Your task to perform on an android device: open sync settings in chrome Image 0: 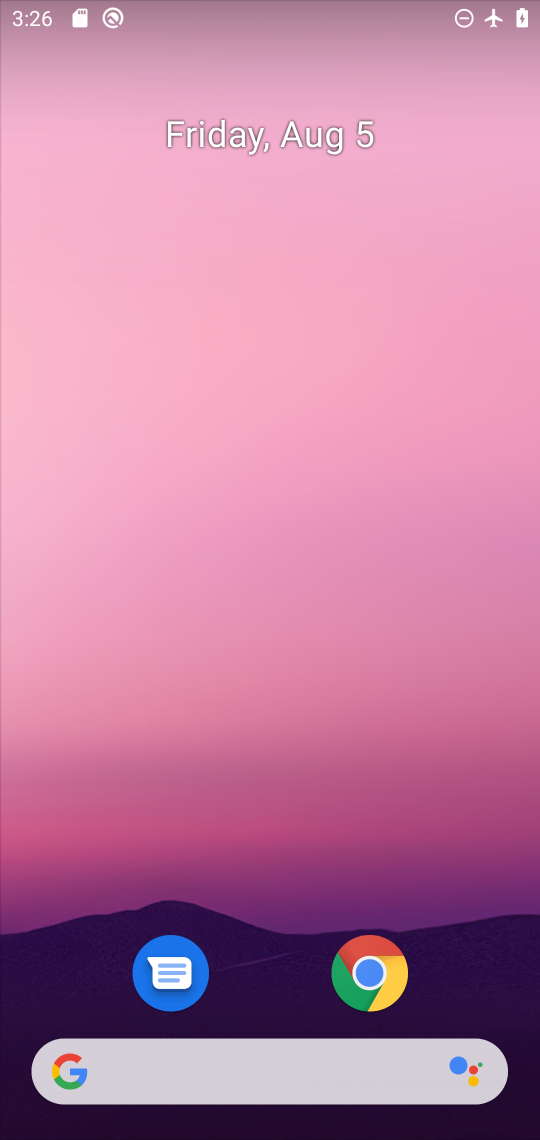
Step 0: drag from (277, 1069) to (278, 270)
Your task to perform on an android device: open sync settings in chrome Image 1: 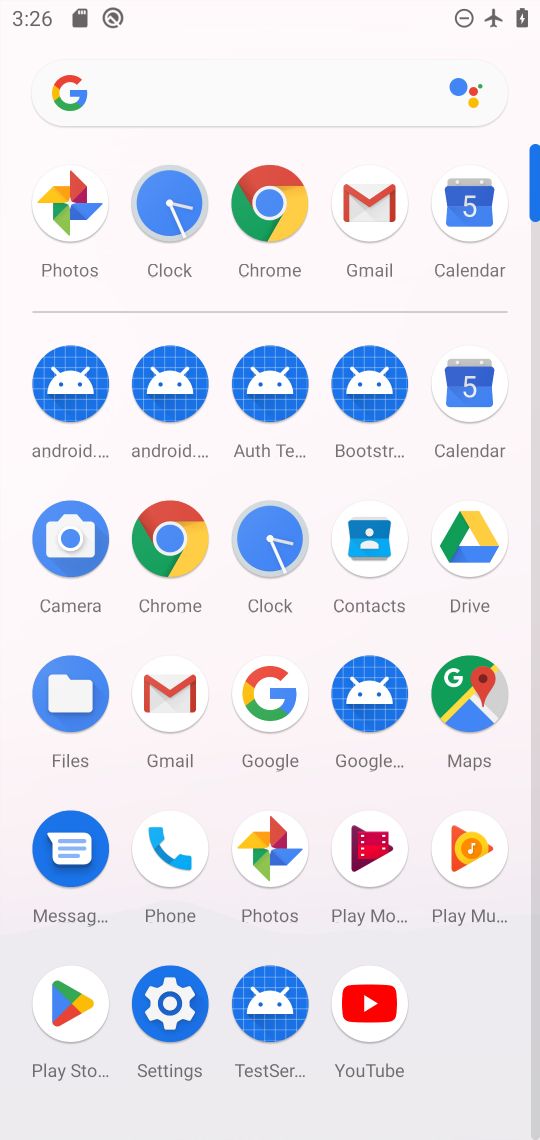
Step 1: click (260, 237)
Your task to perform on an android device: open sync settings in chrome Image 2: 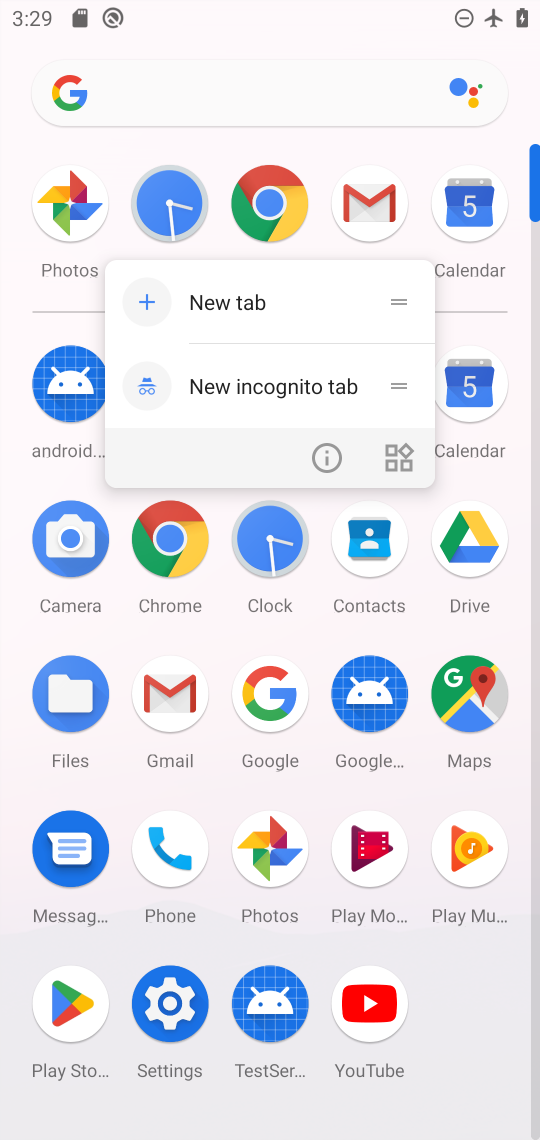
Step 2: click (198, 546)
Your task to perform on an android device: open sync settings in chrome Image 3: 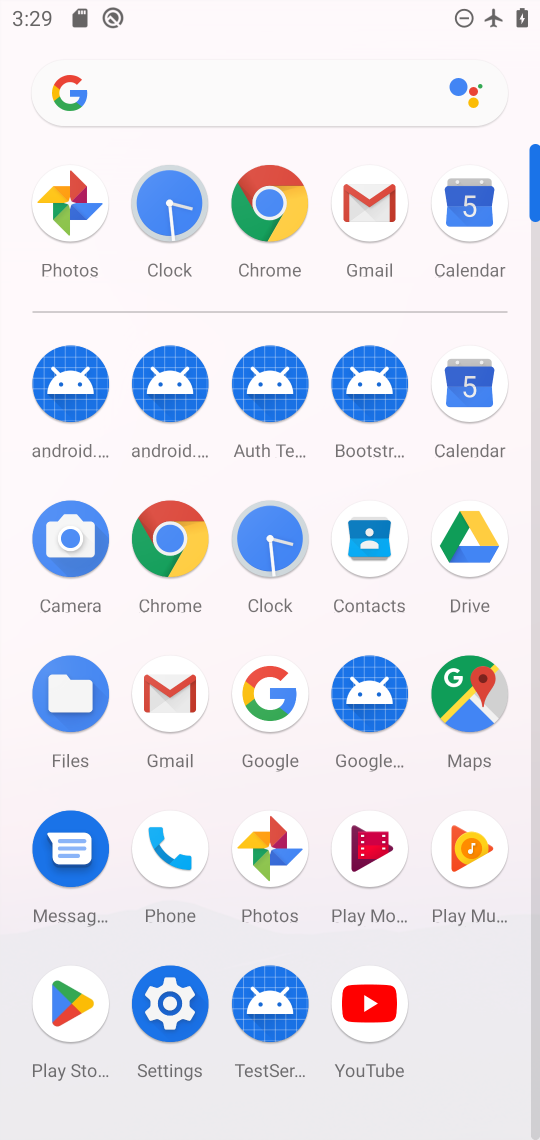
Step 3: click (182, 562)
Your task to perform on an android device: open sync settings in chrome Image 4: 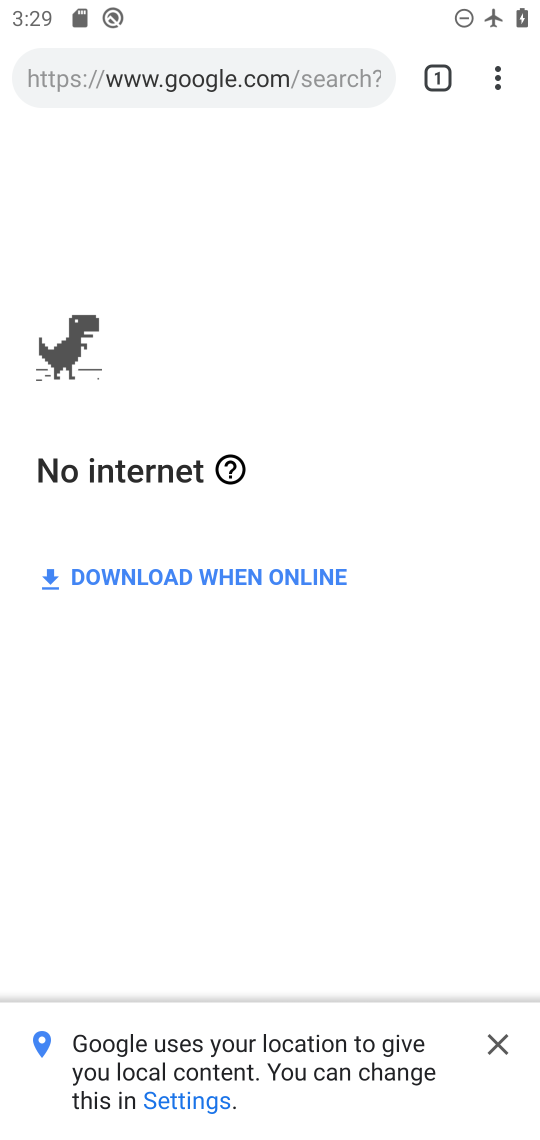
Step 4: click (514, 84)
Your task to perform on an android device: open sync settings in chrome Image 5: 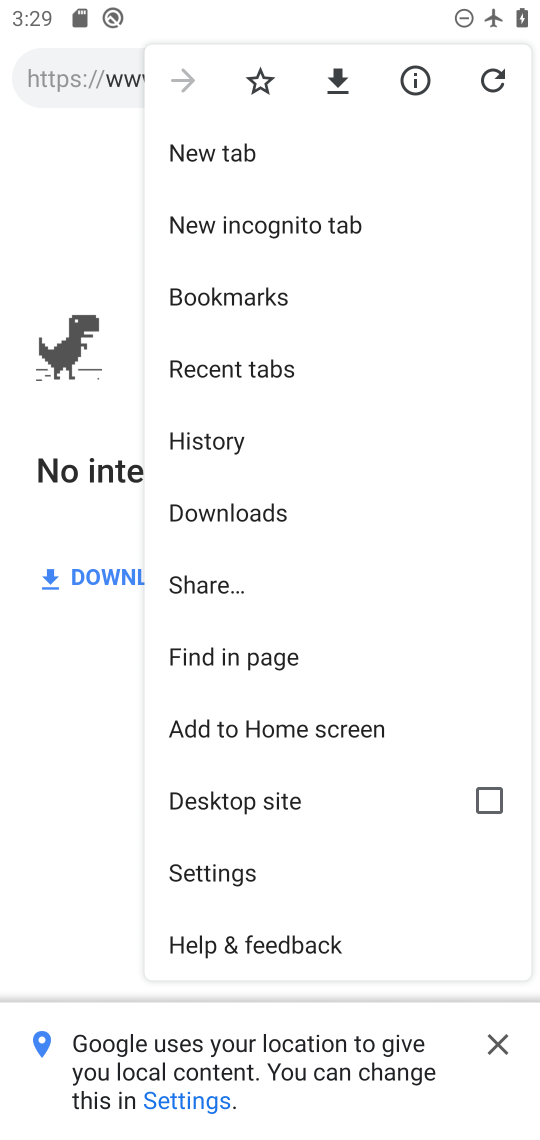
Step 5: click (267, 895)
Your task to perform on an android device: open sync settings in chrome Image 6: 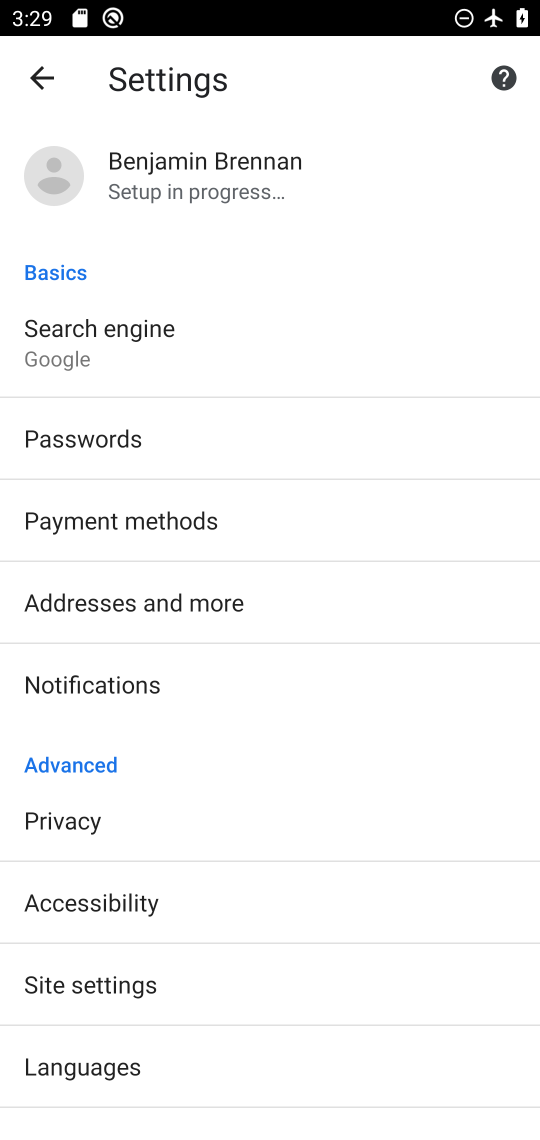
Step 6: drag from (272, 937) to (214, 150)
Your task to perform on an android device: open sync settings in chrome Image 7: 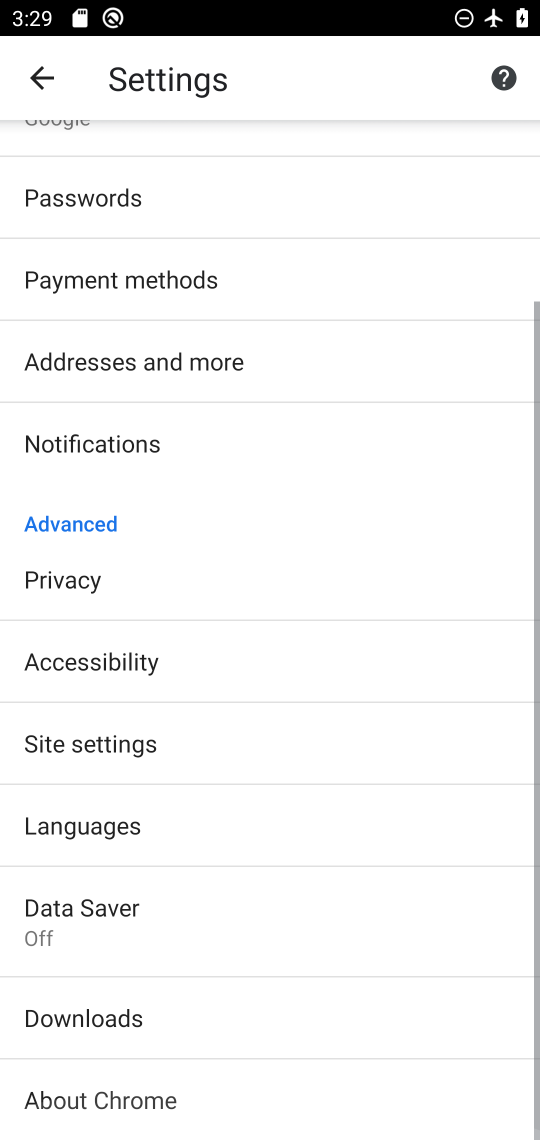
Step 7: drag from (214, 150) to (254, 968)
Your task to perform on an android device: open sync settings in chrome Image 8: 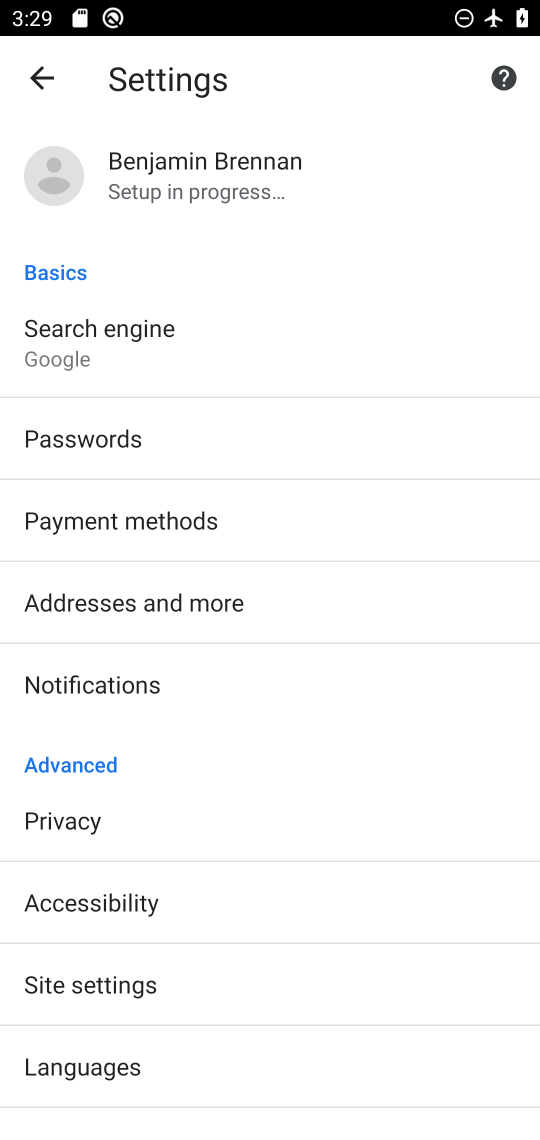
Step 8: click (143, 188)
Your task to perform on an android device: open sync settings in chrome Image 9: 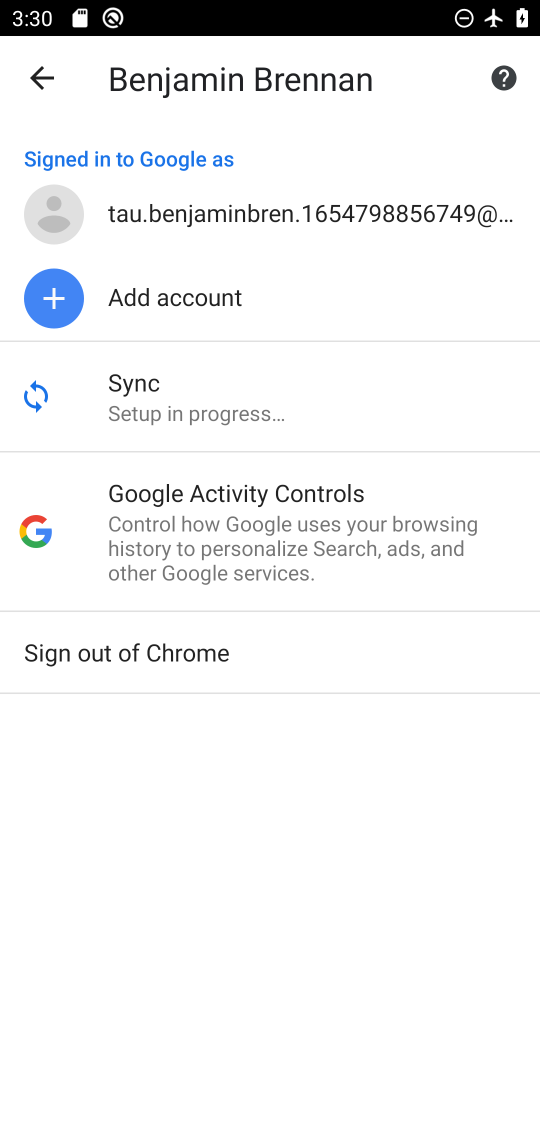
Step 9: click (177, 415)
Your task to perform on an android device: open sync settings in chrome Image 10: 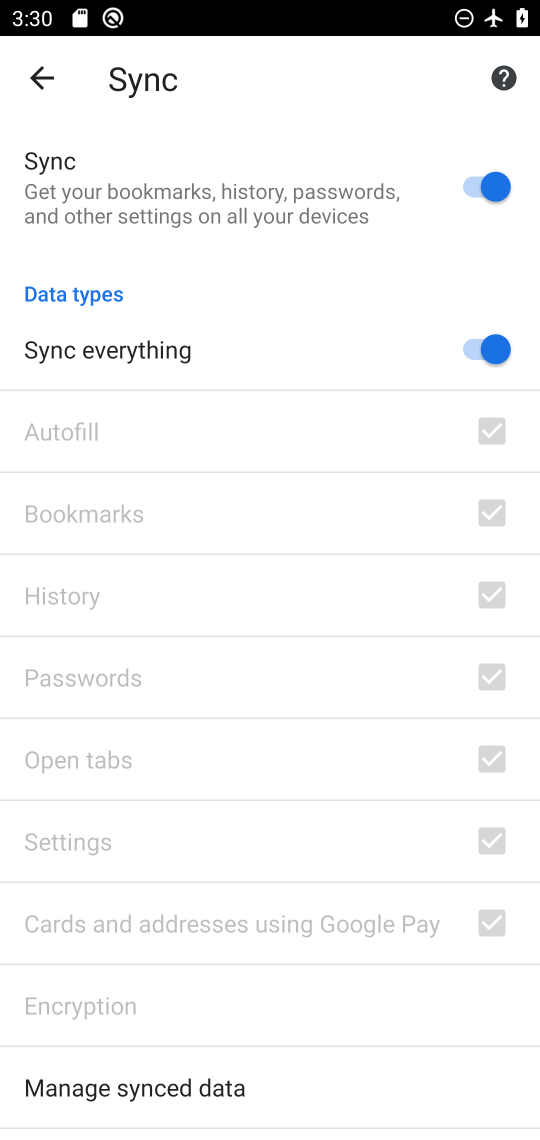
Step 10: task complete